Your task to perform on an android device: Open accessibility settings Image 0: 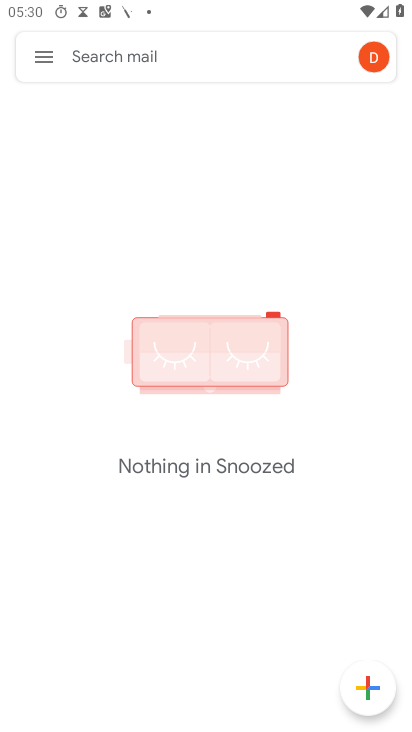
Step 0: press home button
Your task to perform on an android device: Open accessibility settings Image 1: 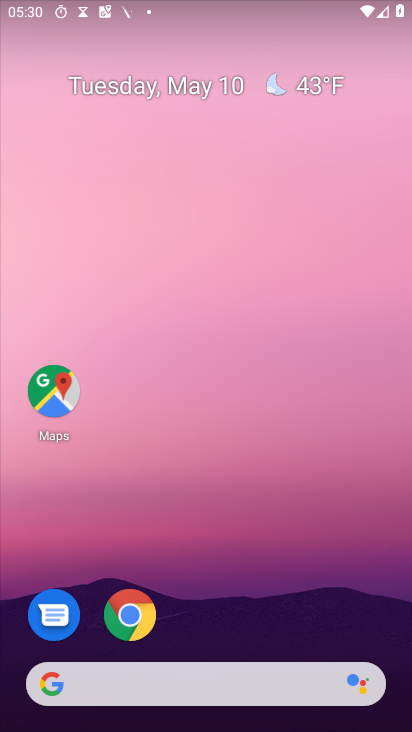
Step 1: drag from (258, 680) to (271, 14)
Your task to perform on an android device: Open accessibility settings Image 2: 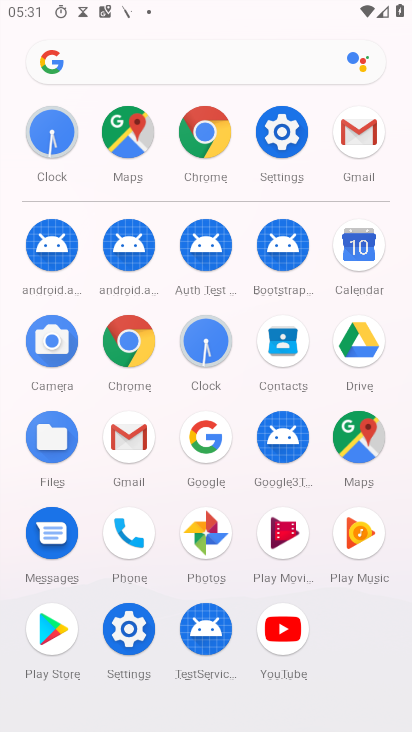
Step 2: click (282, 126)
Your task to perform on an android device: Open accessibility settings Image 3: 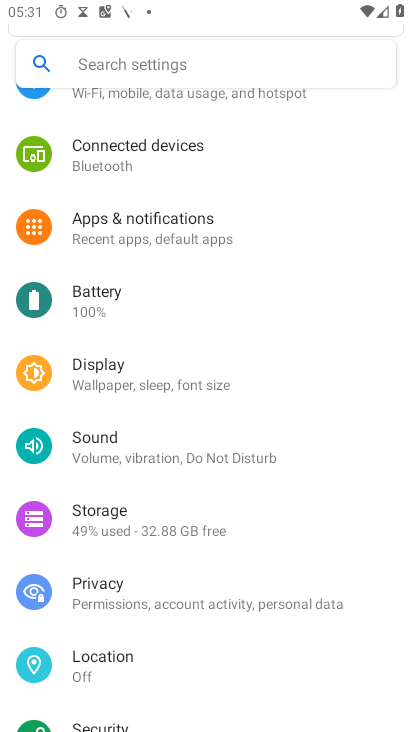
Step 3: drag from (208, 622) to (373, 19)
Your task to perform on an android device: Open accessibility settings Image 4: 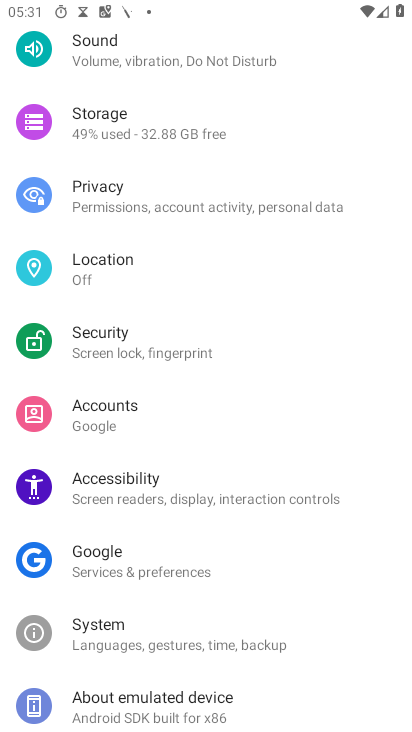
Step 4: click (160, 497)
Your task to perform on an android device: Open accessibility settings Image 5: 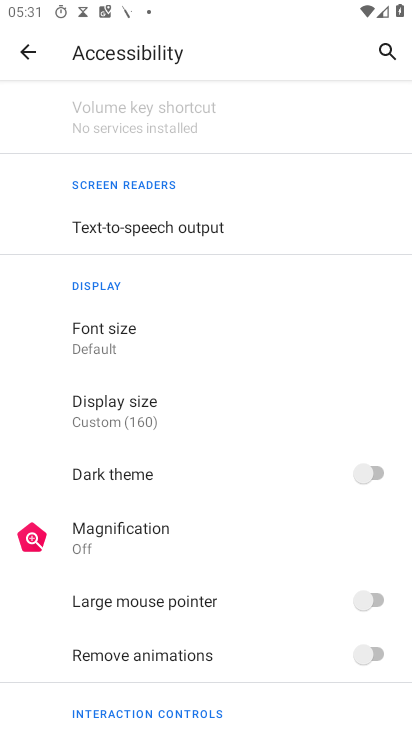
Step 5: task complete